Your task to perform on an android device: toggle data saver in the chrome app Image 0: 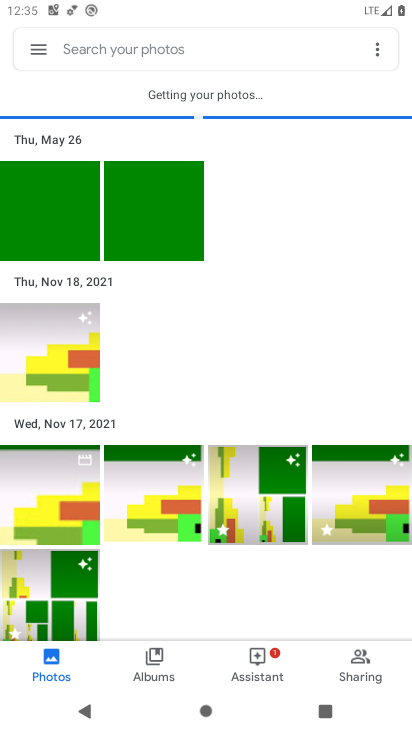
Step 0: click (328, 400)
Your task to perform on an android device: toggle data saver in the chrome app Image 1: 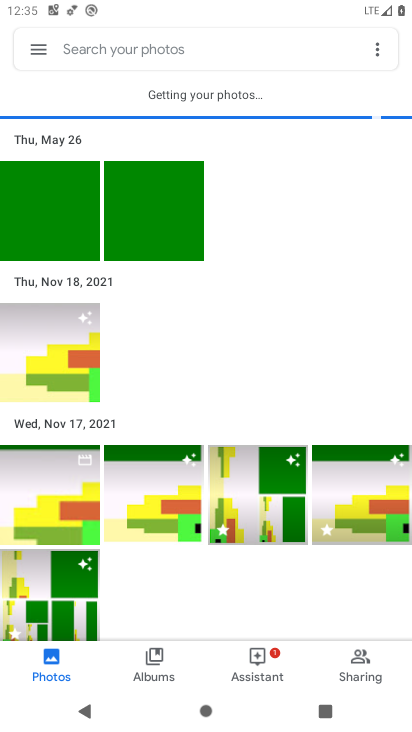
Step 1: press home button
Your task to perform on an android device: toggle data saver in the chrome app Image 2: 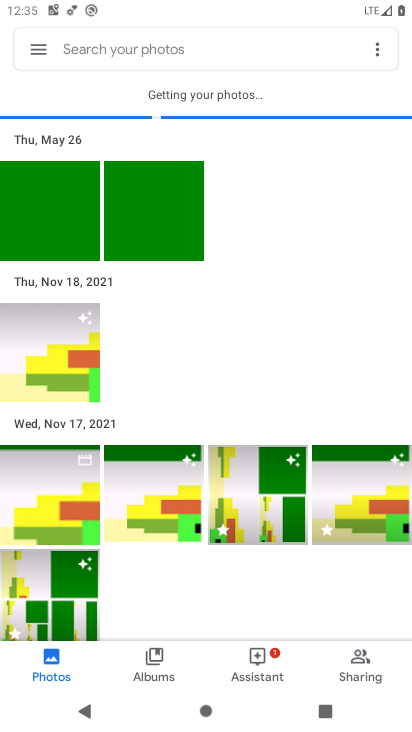
Step 2: drag from (239, 600) to (55, 206)
Your task to perform on an android device: toggle data saver in the chrome app Image 3: 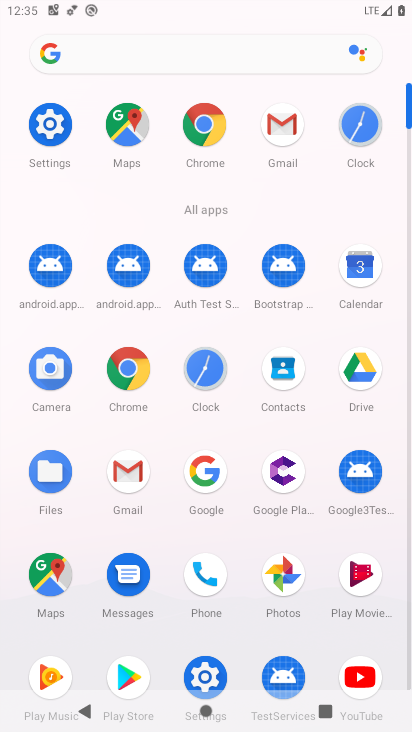
Step 3: click (111, 363)
Your task to perform on an android device: toggle data saver in the chrome app Image 4: 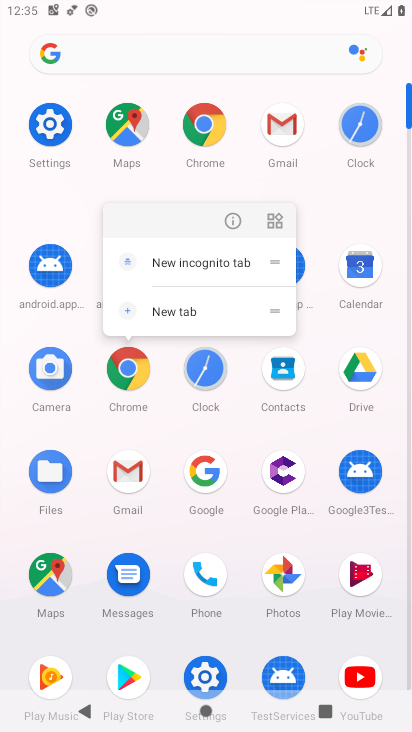
Step 4: click (236, 211)
Your task to perform on an android device: toggle data saver in the chrome app Image 5: 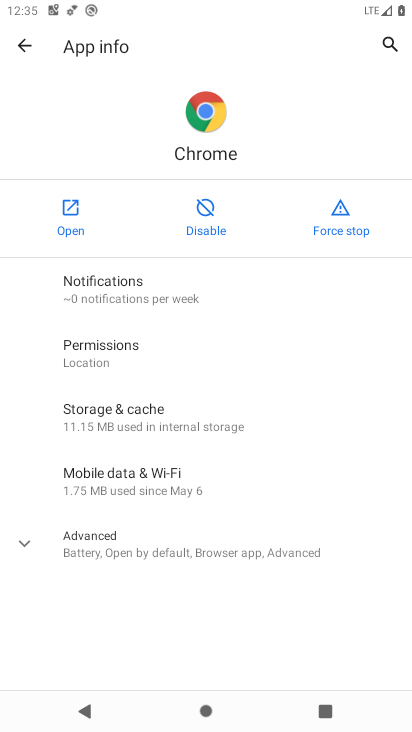
Step 5: click (55, 206)
Your task to perform on an android device: toggle data saver in the chrome app Image 6: 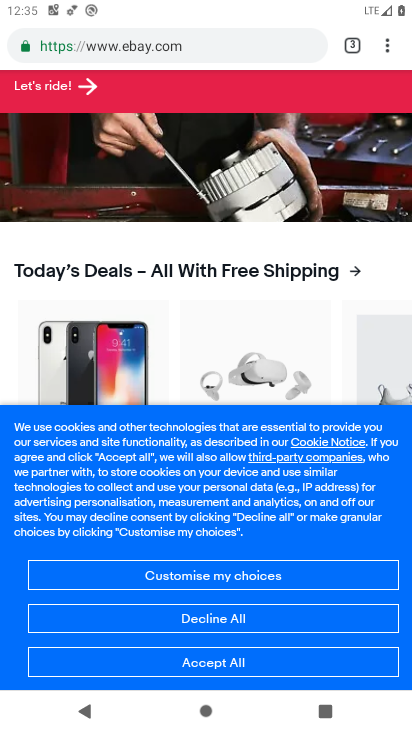
Step 6: drag from (263, 267) to (304, 714)
Your task to perform on an android device: toggle data saver in the chrome app Image 7: 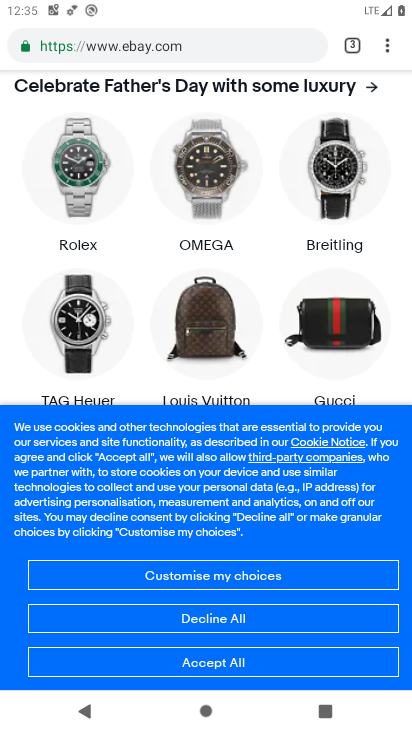
Step 7: click (381, 44)
Your task to perform on an android device: toggle data saver in the chrome app Image 8: 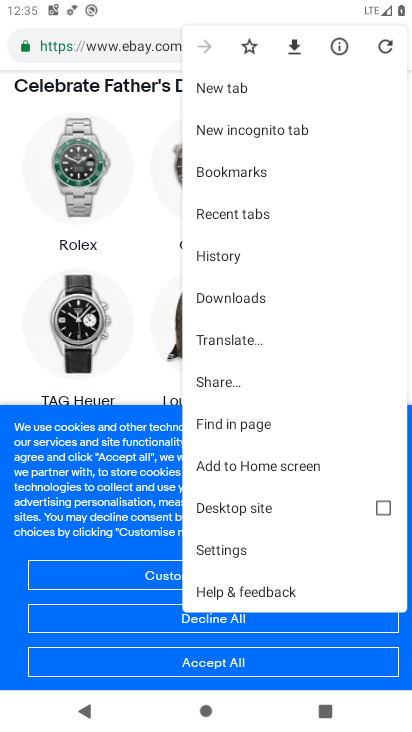
Step 8: click (247, 548)
Your task to perform on an android device: toggle data saver in the chrome app Image 9: 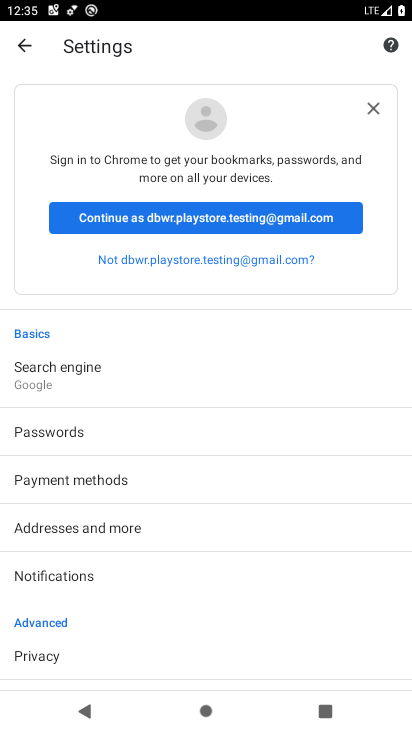
Step 9: drag from (145, 593) to (225, 143)
Your task to perform on an android device: toggle data saver in the chrome app Image 10: 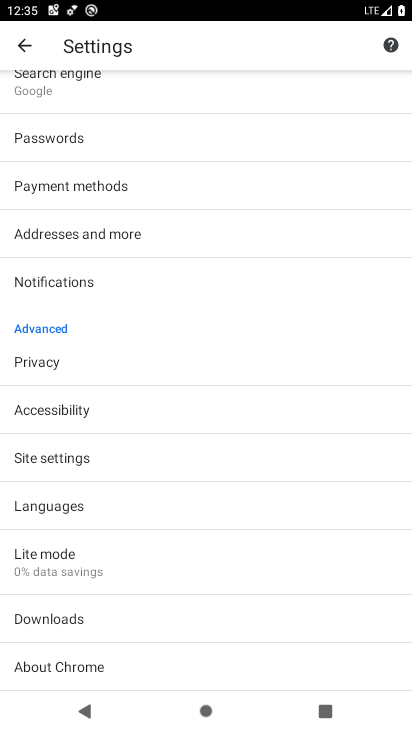
Step 10: click (74, 449)
Your task to perform on an android device: toggle data saver in the chrome app Image 11: 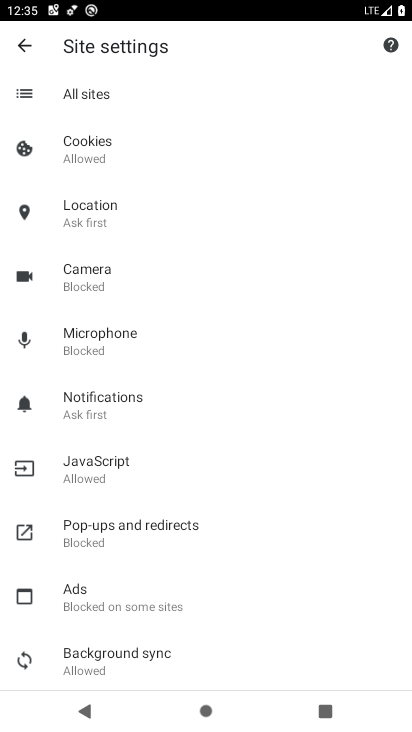
Step 11: click (10, 45)
Your task to perform on an android device: toggle data saver in the chrome app Image 12: 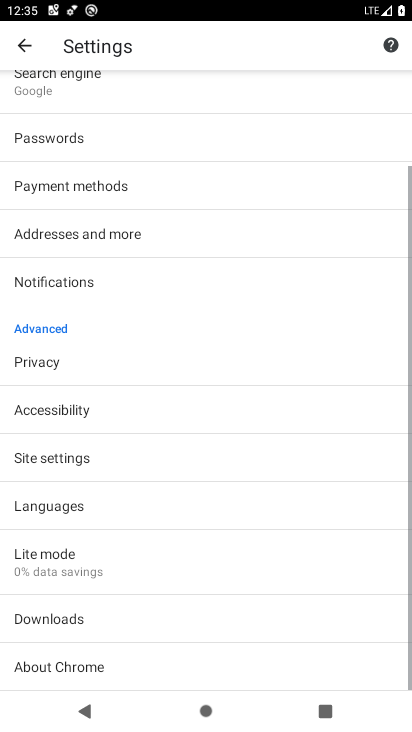
Step 12: drag from (174, 621) to (242, 173)
Your task to perform on an android device: toggle data saver in the chrome app Image 13: 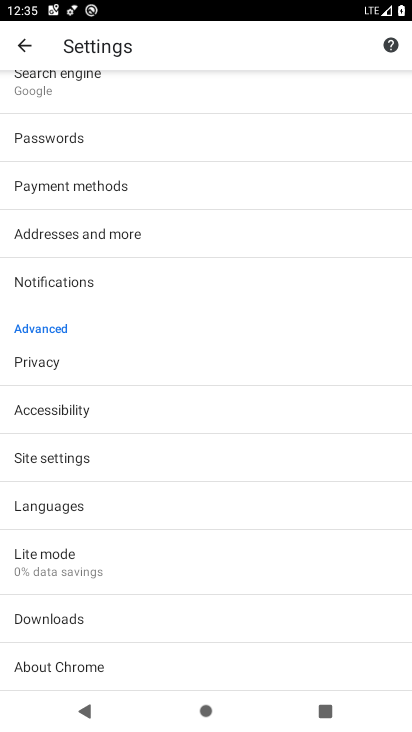
Step 13: click (77, 555)
Your task to perform on an android device: toggle data saver in the chrome app Image 14: 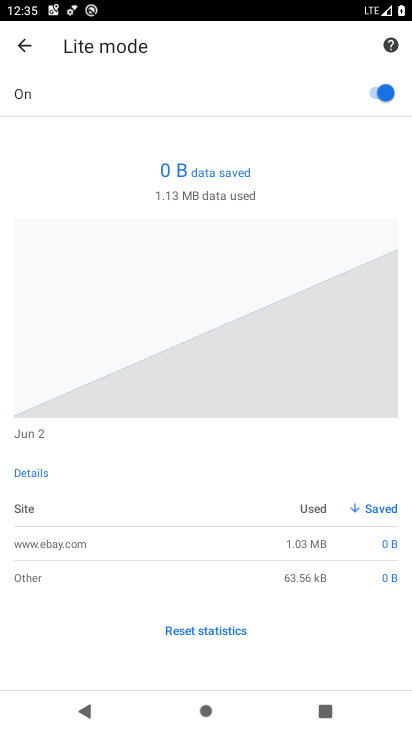
Step 14: click (377, 80)
Your task to perform on an android device: toggle data saver in the chrome app Image 15: 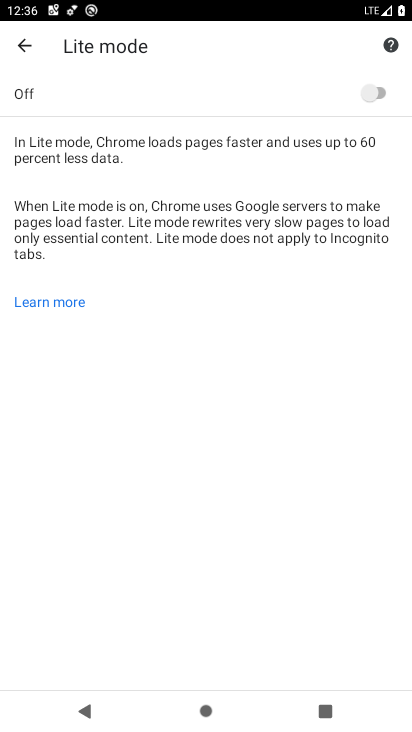
Step 15: task complete